Your task to perform on an android device: toggle airplane mode Image 0: 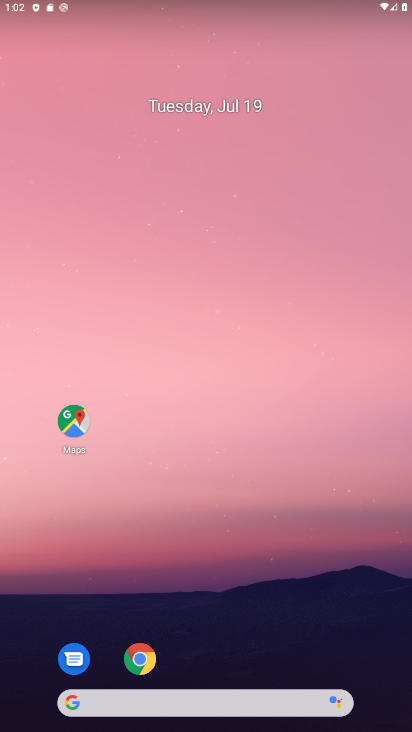
Step 0: press home button
Your task to perform on an android device: toggle airplane mode Image 1: 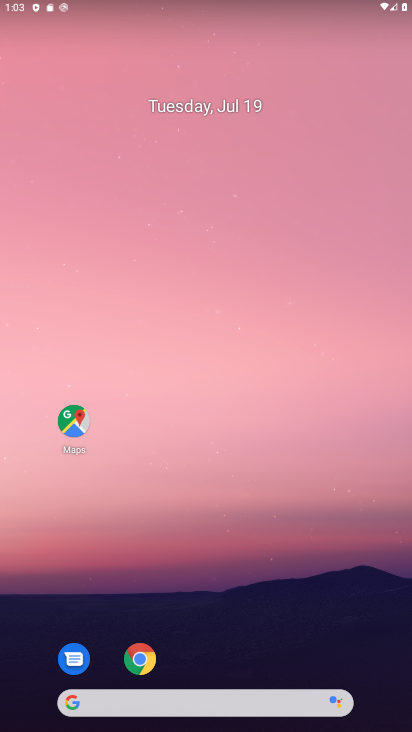
Step 1: drag from (323, 0) to (241, 694)
Your task to perform on an android device: toggle airplane mode Image 2: 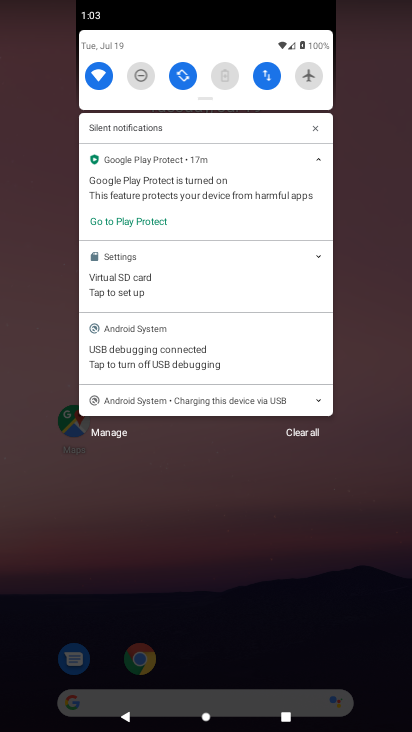
Step 2: click (301, 87)
Your task to perform on an android device: toggle airplane mode Image 3: 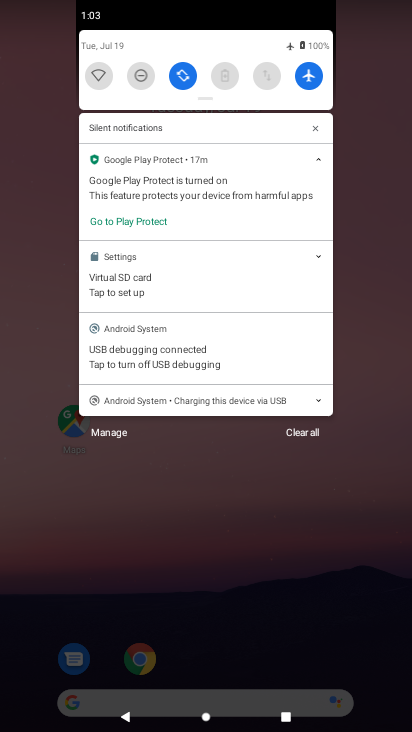
Step 3: task complete